Your task to perform on an android device: choose inbox layout in the gmail app Image 0: 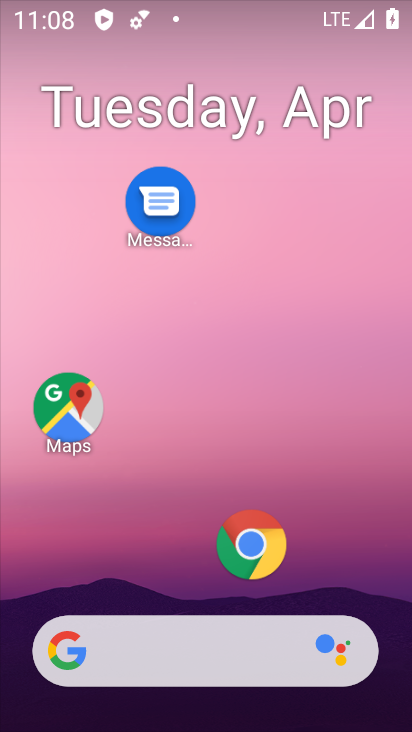
Step 0: drag from (170, 589) to (395, 4)
Your task to perform on an android device: choose inbox layout in the gmail app Image 1: 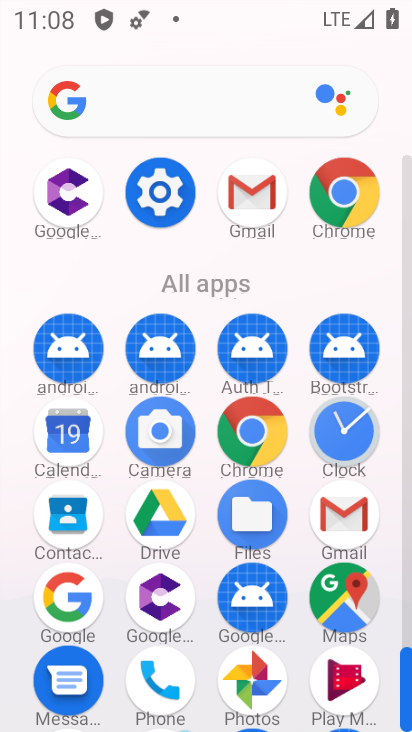
Step 1: click (343, 511)
Your task to perform on an android device: choose inbox layout in the gmail app Image 2: 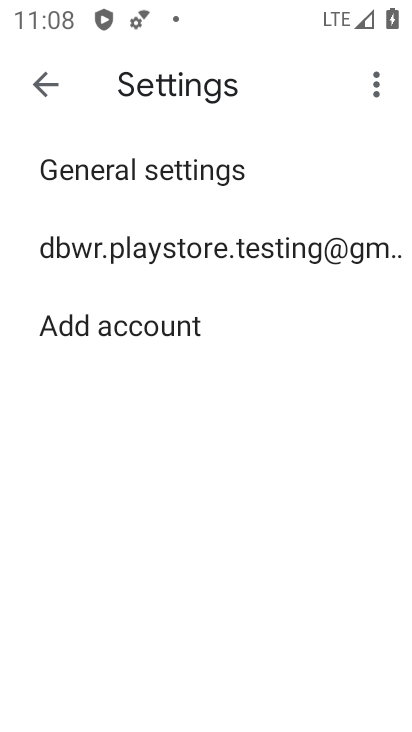
Step 2: click (176, 239)
Your task to perform on an android device: choose inbox layout in the gmail app Image 3: 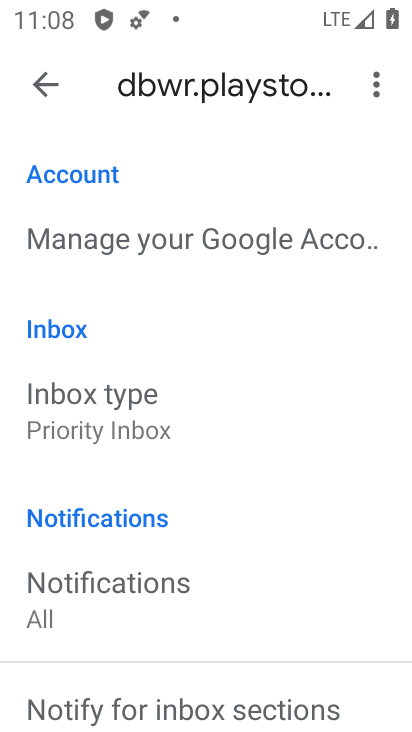
Step 3: click (136, 401)
Your task to perform on an android device: choose inbox layout in the gmail app Image 4: 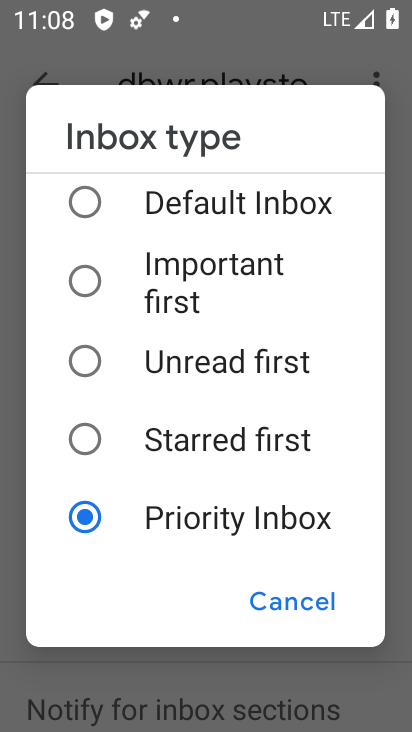
Step 4: click (90, 194)
Your task to perform on an android device: choose inbox layout in the gmail app Image 5: 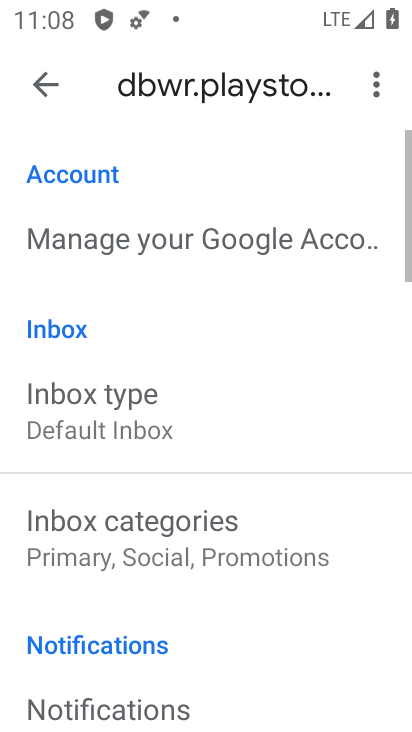
Step 5: task complete